Your task to perform on an android device: Show me popular videos on Youtube Image 0: 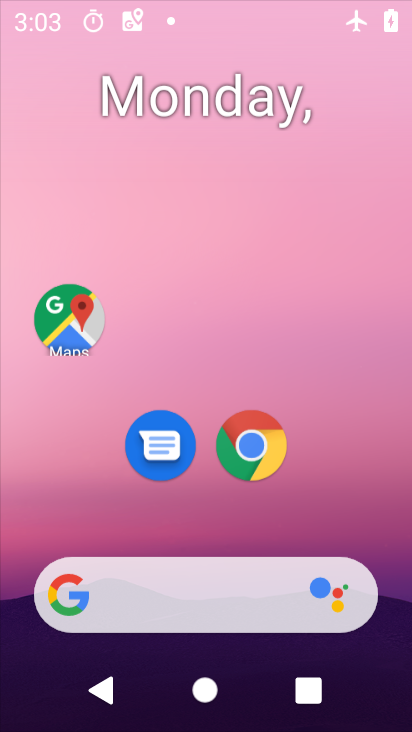
Step 0: drag from (304, 13) to (314, 483)
Your task to perform on an android device: Show me popular videos on Youtube Image 1: 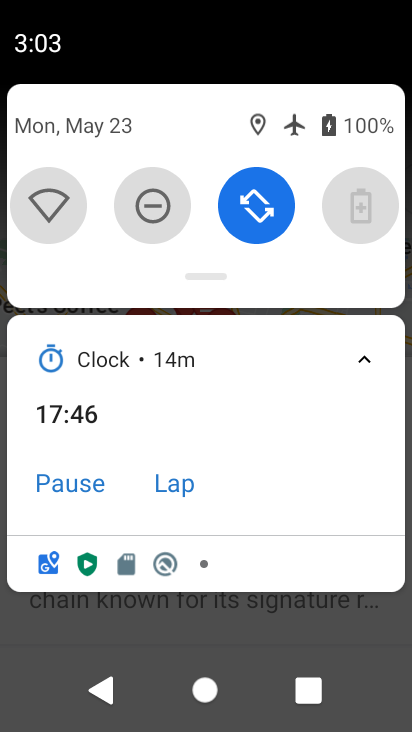
Step 1: drag from (313, 257) to (305, 637)
Your task to perform on an android device: Show me popular videos on Youtube Image 2: 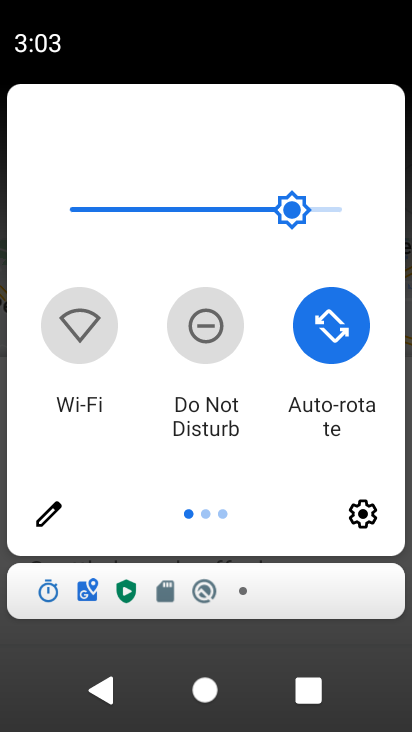
Step 2: drag from (334, 432) to (44, 423)
Your task to perform on an android device: Show me popular videos on Youtube Image 3: 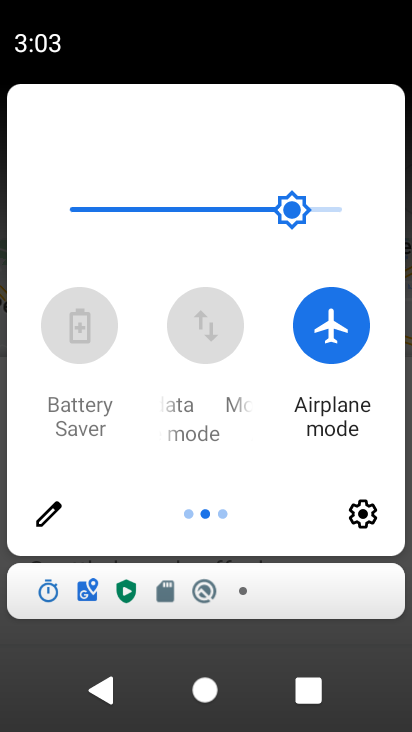
Step 3: click (318, 324)
Your task to perform on an android device: Show me popular videos on Youtube Image 4: 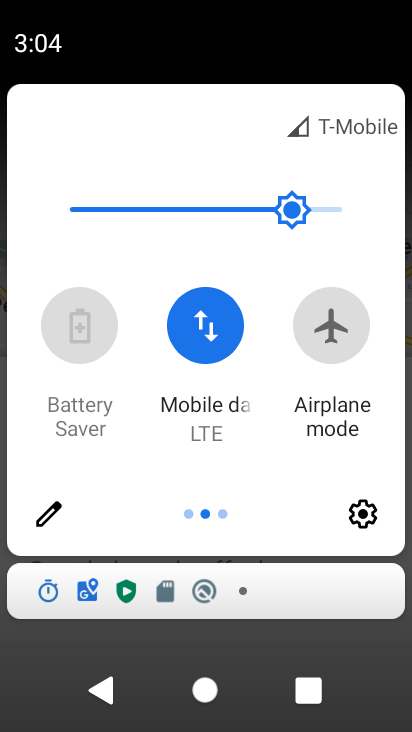
Step 4: press home button
Your task to perform on an android device: Show me popular videos on Youtube Image 5: 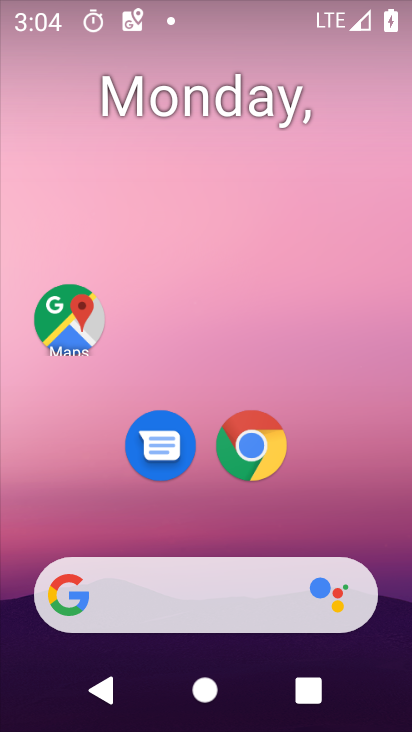
Step 5: drag from (231, 578) to (243, 154)
Your task to perform on an android device: Show me popular videos on Youtube Image 6: 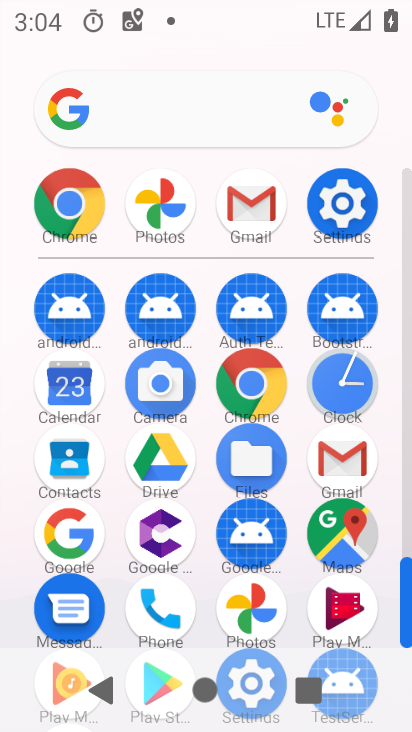
Step 6: drag from (192, 636) to (165, 324)
Your task to perform on an android device: Show me popular videos on Youtube Image 7: 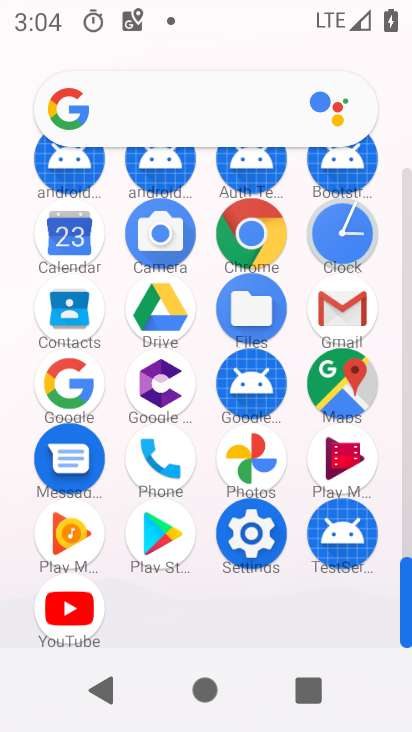
Step 7: click (55, 598)
Your task to perform on an android device: Show me popular videos on Youtube Image 8: 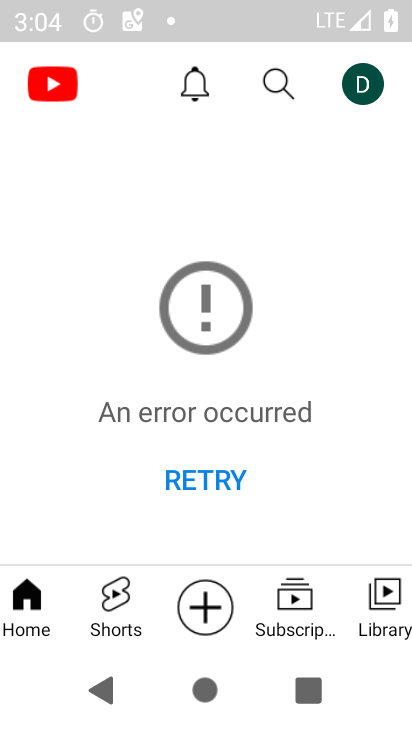
Step 8: click (201, 480)
Your task to perform on an android device: Show me popular videos on Youtube Image 9: 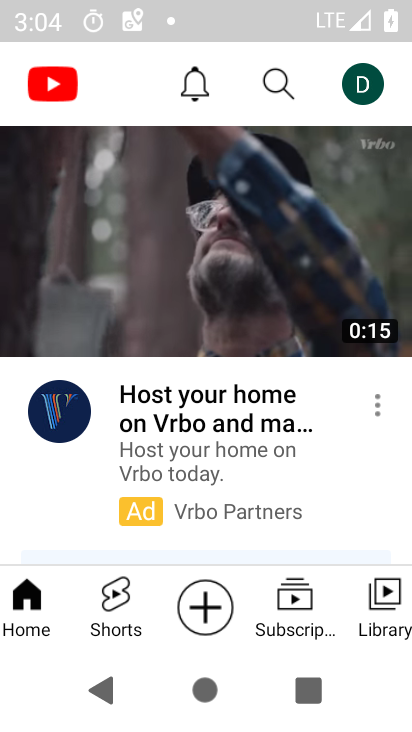
Step 9: task complete